Your task to perform on an android device: Go to calendar. Show me events next week Image 0: 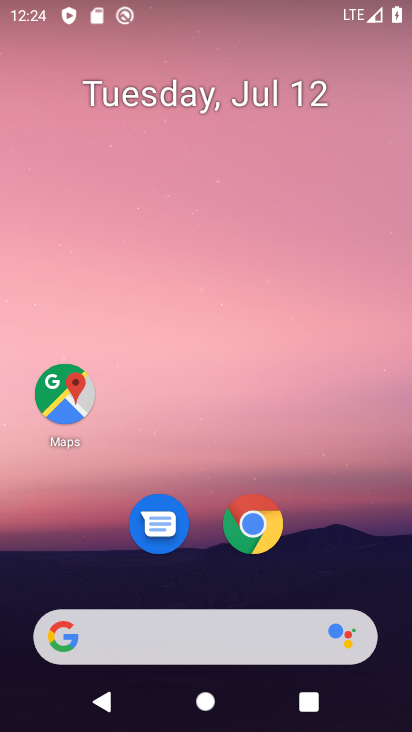
Step 0: drag from (315, 514) to (258, 28)
Your task to perform on an android device: Go to calendar. Show me events next week Image 1: 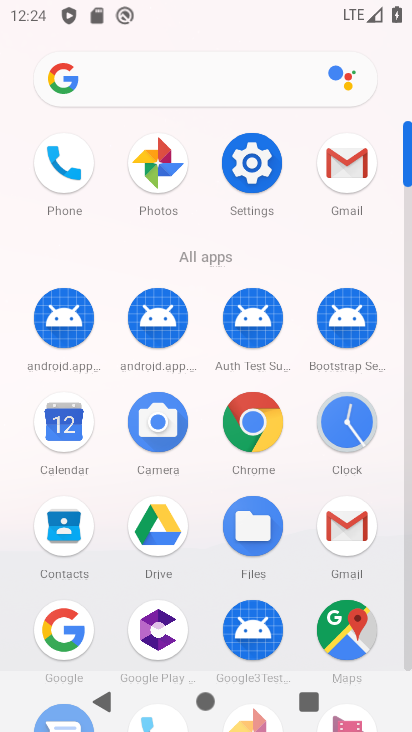
Step 1: click (68, 423)
Your task to perform on an android device: Go to calendar. Show me events next week Image 2: 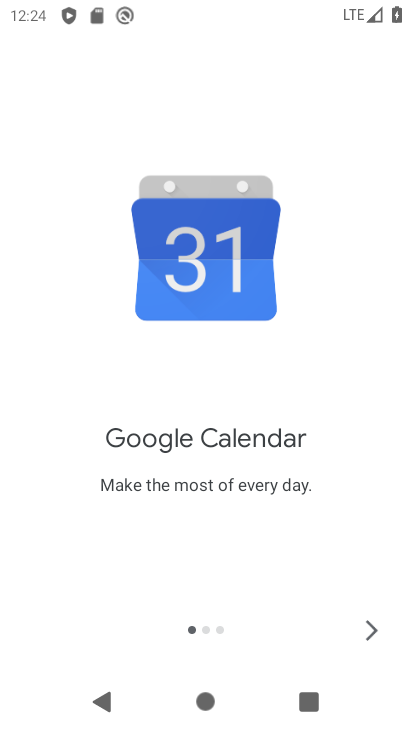
Step 2: click (373, 630)
Your task to perform on an android device: Go to calendar. Show me events next week Image 3: 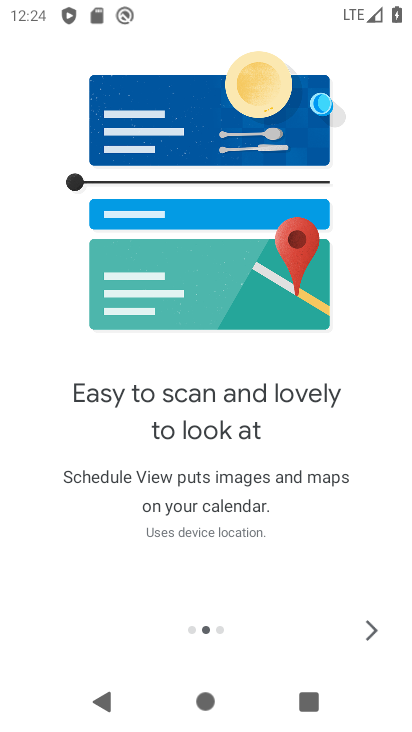
Step 3: click (373, 630)
Your task to perform on an android device: Go to calendar. Show me events next week Image 4: 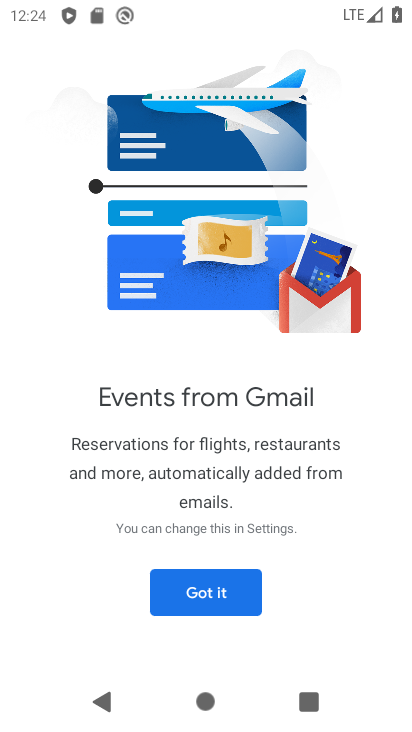
Step 4: click (234, 585)
Your task to perform on an android device: Go to calendar. Show me events next week Image 5: 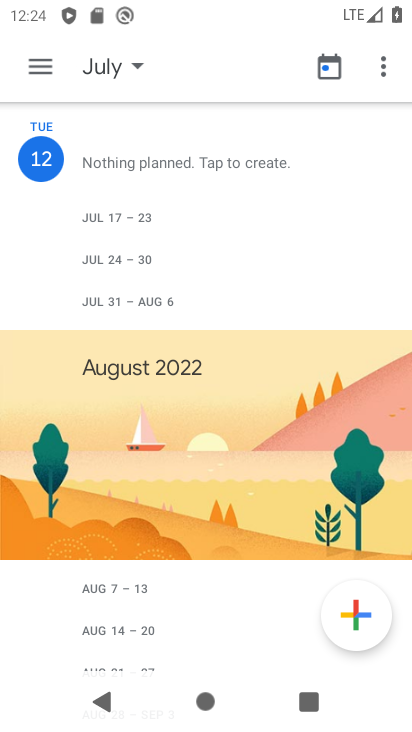
Step 5: click (45, 66)
Your task to perform on an android device: Go to calendar. Show me events next week Image 6: 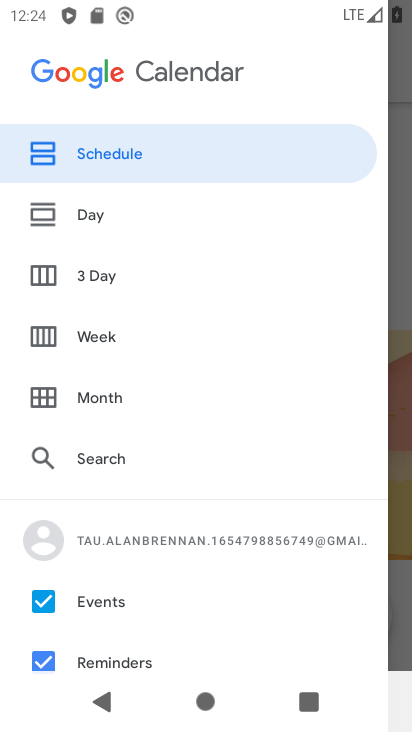
Step 6: click (37, 335)
Your task to perform on an android device: Go to calendar. Show me events next week Image 7: 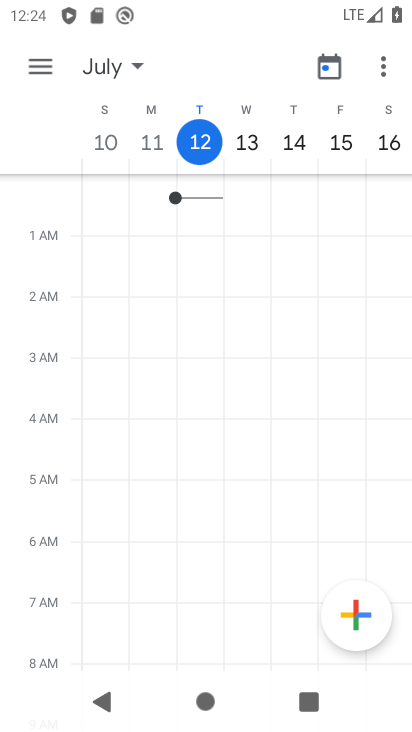
Step 7: task complete